Your task to perform on an android device: What's on my calendar tomorrow? Image 0: 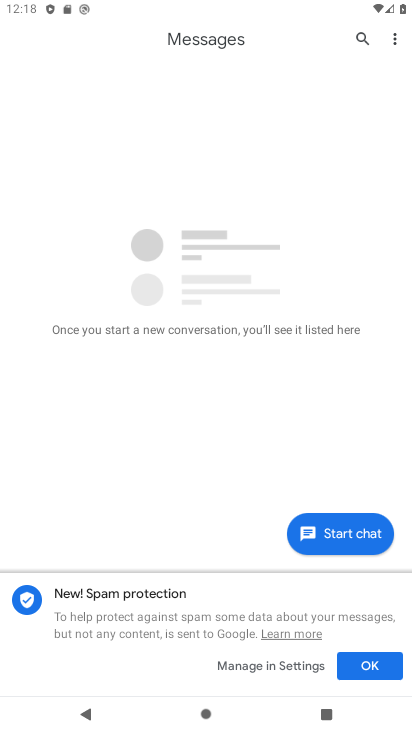
Step 0: press home button
Your task to perform on an android device: What's on my calendar tomorrow? Image 1: 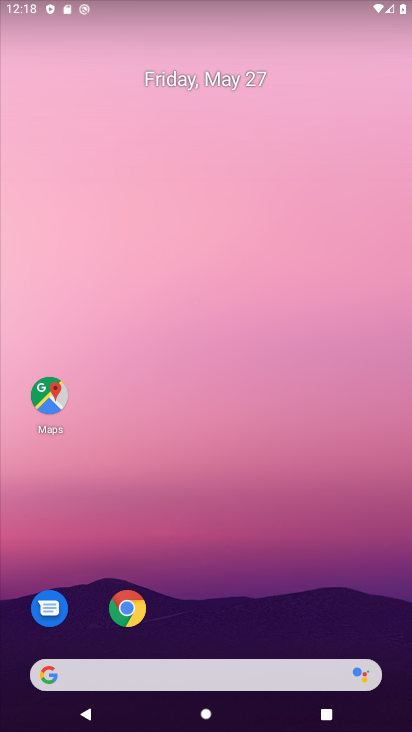
Step 1: drag from (208, 618) to (252, 69)
Your task to perform on an android device: What's on my calendar tomorrow? Image 2: 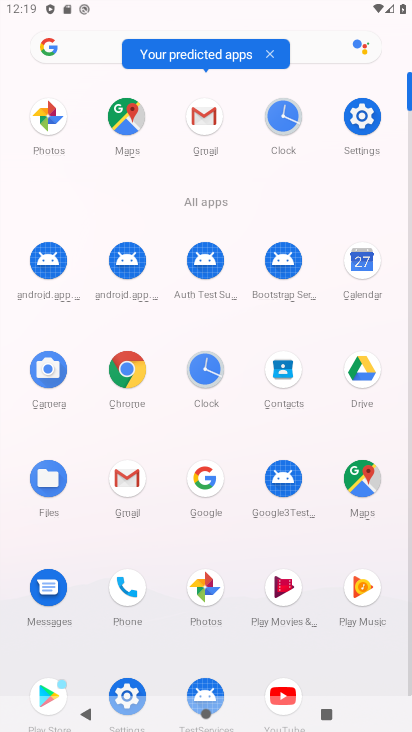
Step 2: click (365, 269)
Your task to perform on an android device: What's on my calendar tomorrow? Image 3: 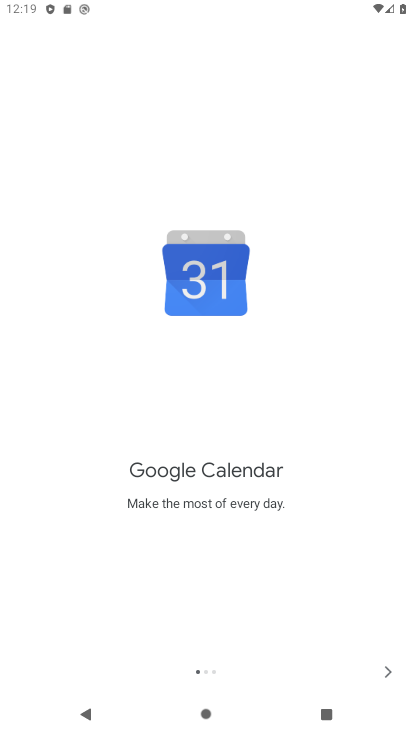
Step 3: click (387, 666)
Your task to perform on an android device: What's on my calendar tomorrow? Image 4: 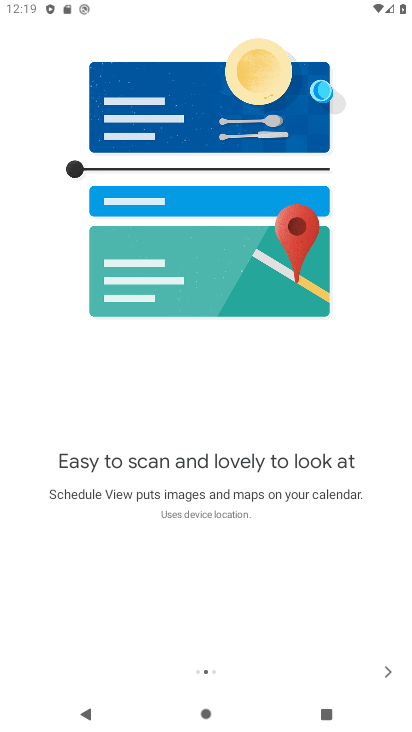
Step 4: click (386, 663)
Your task to perform on an android device: What's on my calendar tomorrow? Image 5: 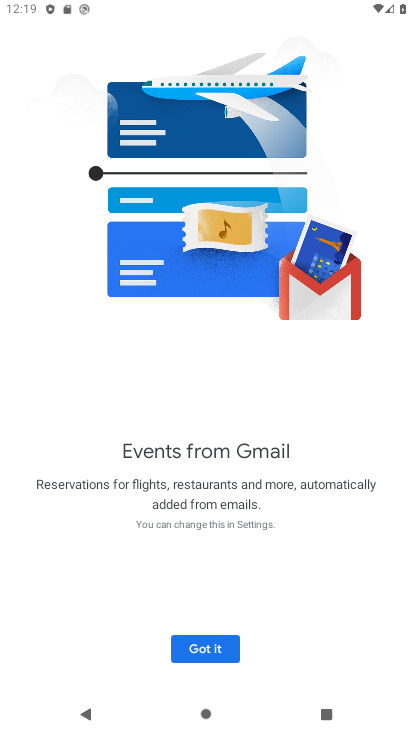
Step 5: click (214, 653)
Your task to perform on an android device: What's on my calendar tomorrow? Image 6: 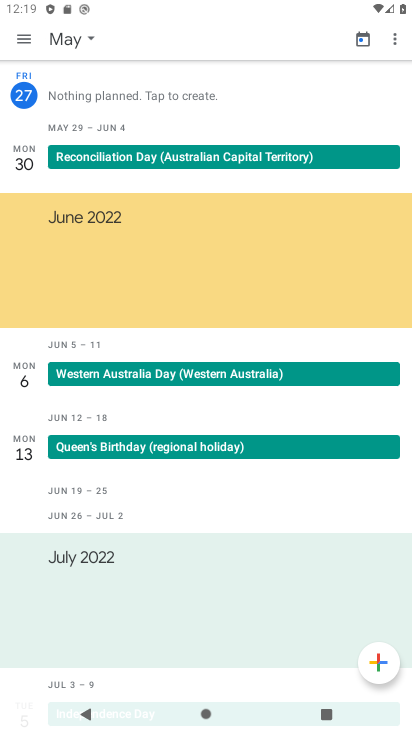
Step 6: task complete